Your task to perform on an android device: find photos in the google photos app Image 0: 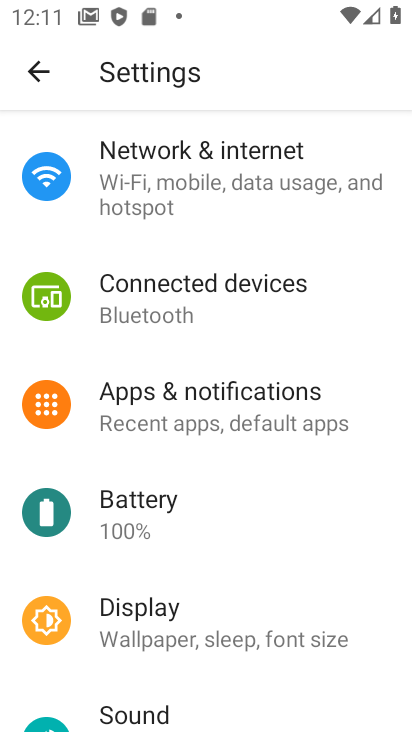
Step 0: press home button
Your task to perform on an android device: find photos in the google photos app Image 1: 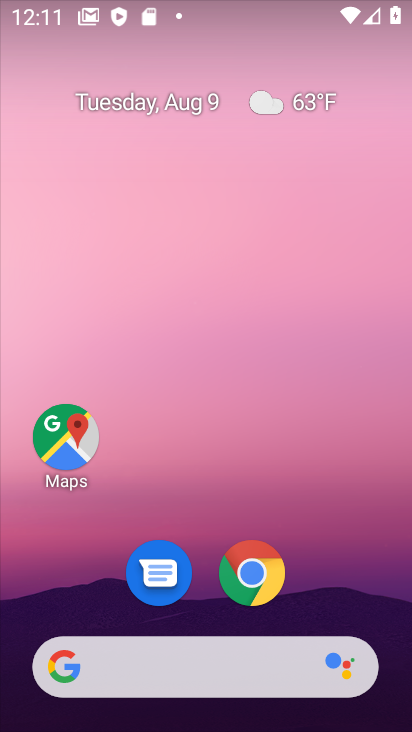
Step 1: drag from (163, 644) to (92, 209)
Your task to perform on an android device: find photos in the google photos app Image 2: 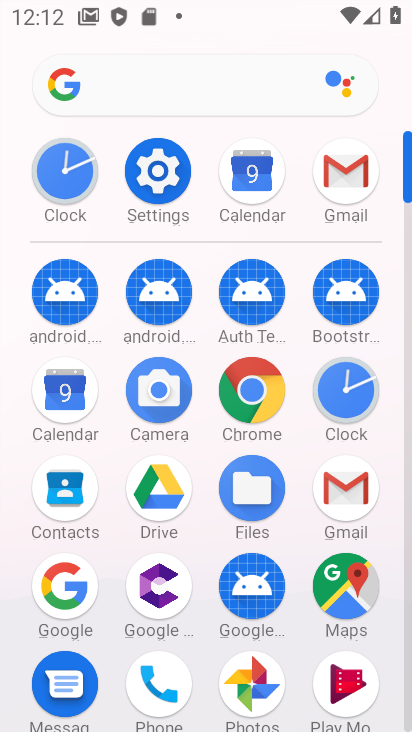
Step 2: click (249, 688)
Your task to perform on an android device: find photos in the google photos app Image 3: 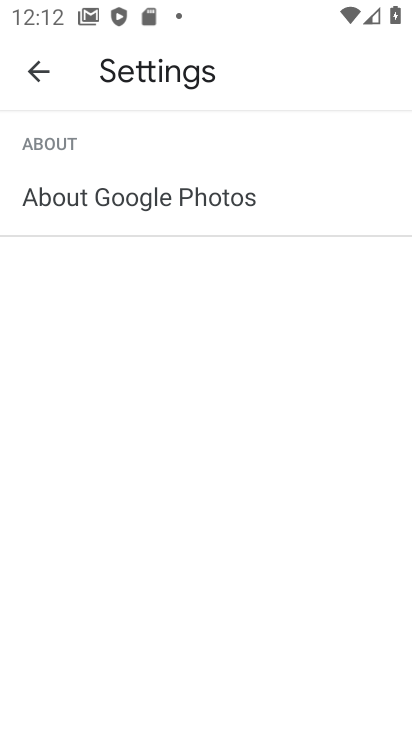
Step 3: click (26, 69)
Your task to perform on an android device: find photos in the google photos app Image 4: 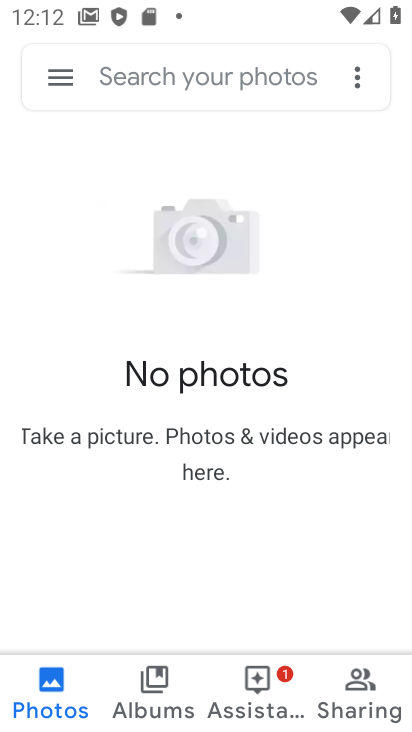
Step 4: task complete